Your task to perform on an android device: set default search engine in the chrome app Image 0: 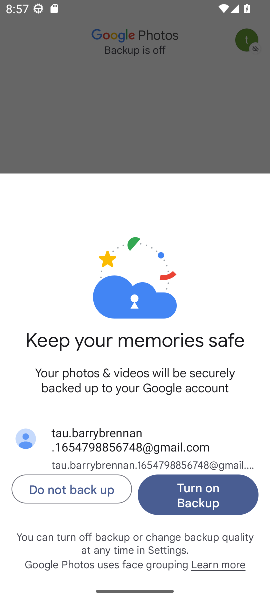
Step 0: press home button
Your task to perform on an android device: set default search engine in the chrome app Image 1: 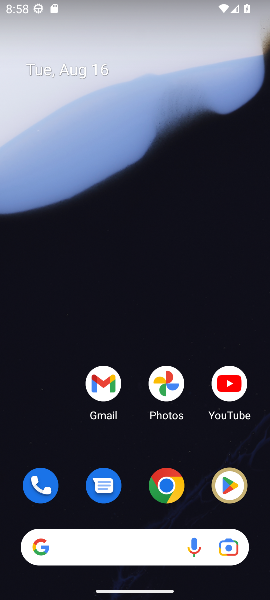
Step 1: click (164, 490)
Your task to perform on an android device: set default search engine in the chrome app Image 2: 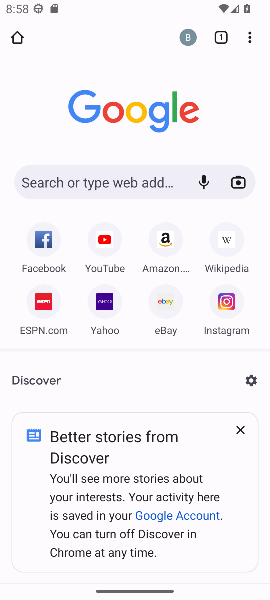
Step 2: click (249, 32)
Your task to perform on an android device: set default search engine in the chrome app Image 3: 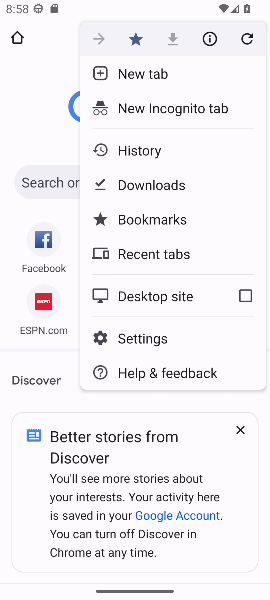
Step 3: click (142, 341)
Your task to perform on an android device: set default search engine in the chrome app Image 4: 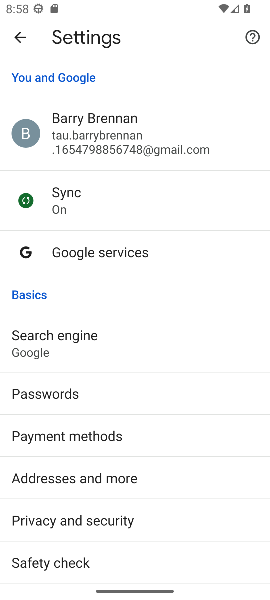
Step 4: click (101, 345)
Your task to perform on an android device: set default search engine in the chrome app Image 5: 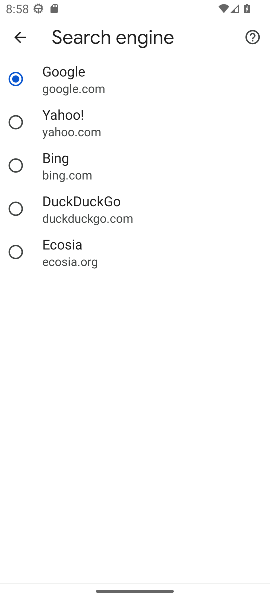
Step 5: click (44, 168)
Your task to perform on an android device: set default search engine in the chrome app Image 6: 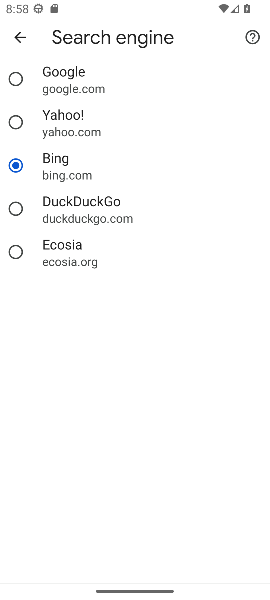
Step 6: task complete